Your task to perform on an android device: Search for the top rated book on goodreads. Image 0: 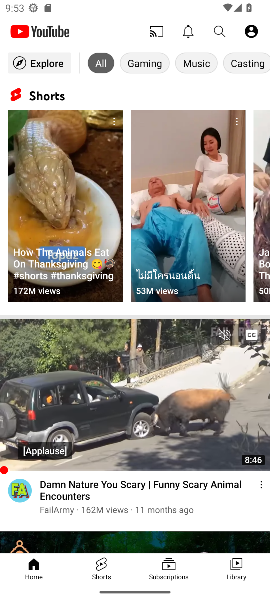
Step 0: press home button
Your task to perform on an android device: Search for the top rated book on goodreads. Image 1: 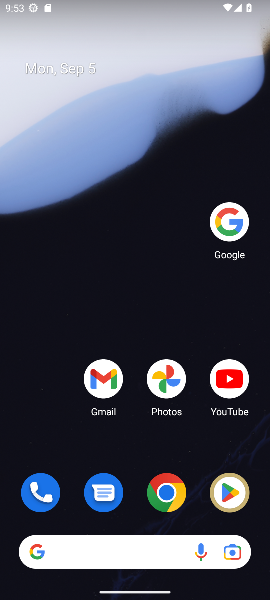
Step 1: click (228, 213)
Your task to perform on an android device: Search for the top rated book on goodreads. Image 2: 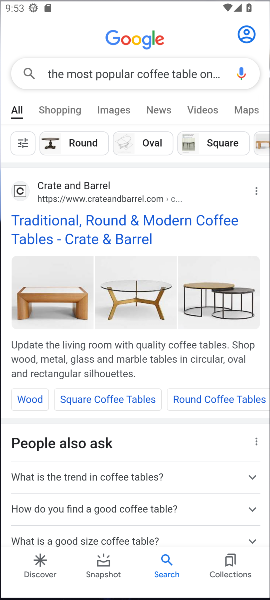
Step 2: click (147, 70)
Your task to perform on an android device: Search for the top rated book on goodreads. Image 3: 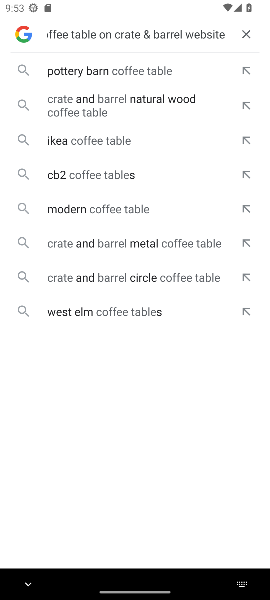
Step 3: click (239, 39)
Your task to perform on an android device: Search for the top rated book on goodreads. Image 4: 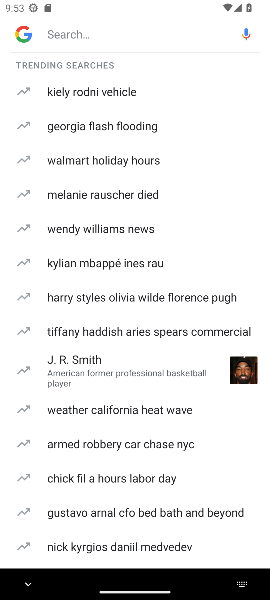
Step 4: click (99, 40)
Your task to perform on an android device: Search for the top rated book on goodreads. Image 5: 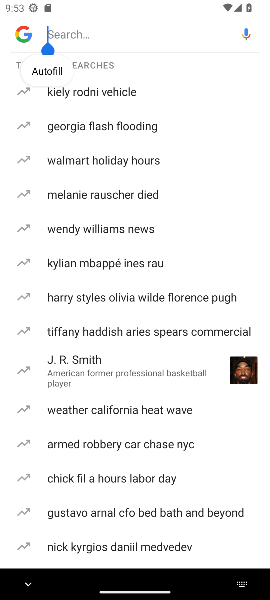
Step 5: type " top rated book on goodreads. "
Your task to perform on an android device: Search for the top rated book on goodreads. Image 6: 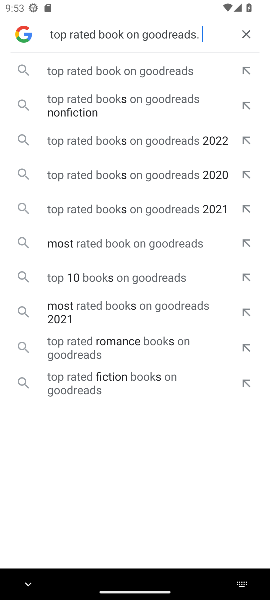
Step 6: click (89, 71)
Your task to perform on an android device: Search for the top rated book on goodreads. Image 7: 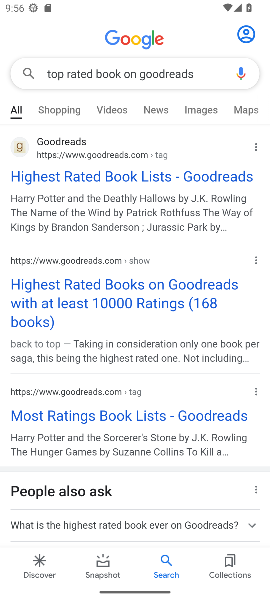
Step 7: click (108, 167)
Your task to perform on an android device: Search for the top rated book on goodreads. Image 8: 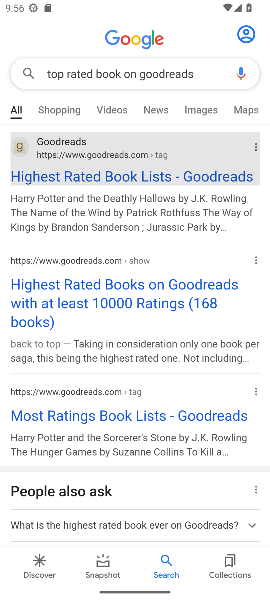
Step 8: click (111, 174)
Your task to perform on an android device: Search for the top rated book on goodreads. Image 9: 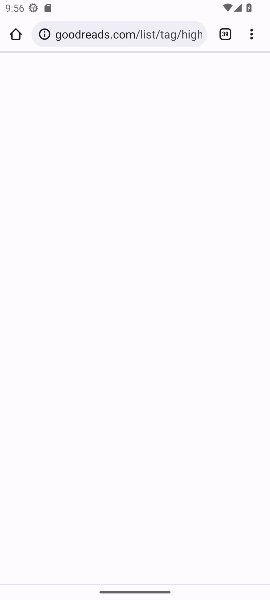
Step 9: task complete